Your task to perform on an android device: toggle priority inbox in the gmail app Image 0: 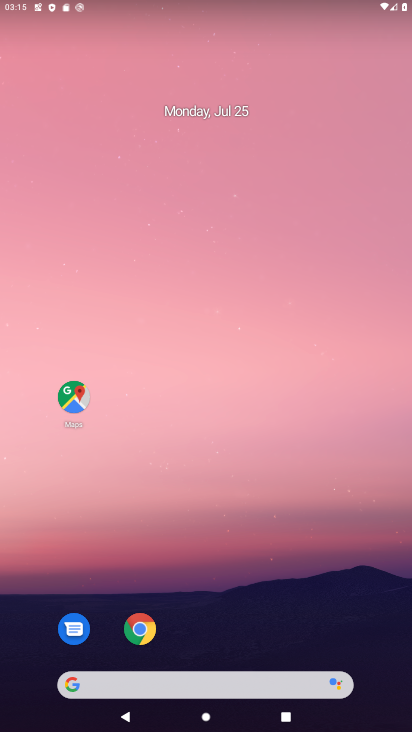
Step 0: drag from (289, 578) to (250, 16)
Your task to perform on an android device: toggle priority inbox in the gmail app Image 1: 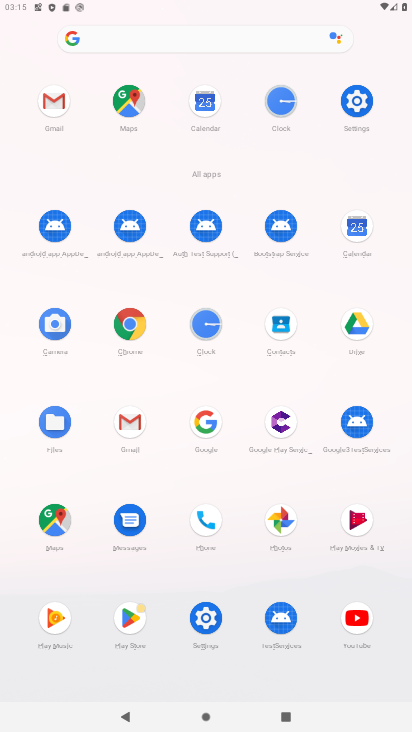
Step 1: click (128, 415)
Your task to perform on an android device: toggle priority inbox in the gmail app Image 2: 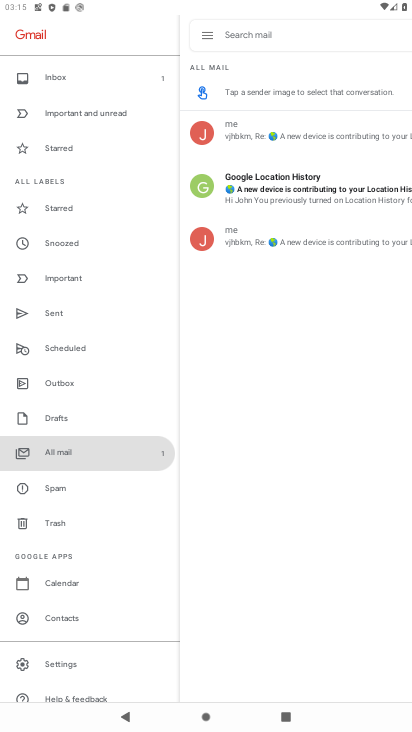
Step 2: click (46, 655)
Your task to perform on an android device: toggle priority inbox in the gmail app Image 3: 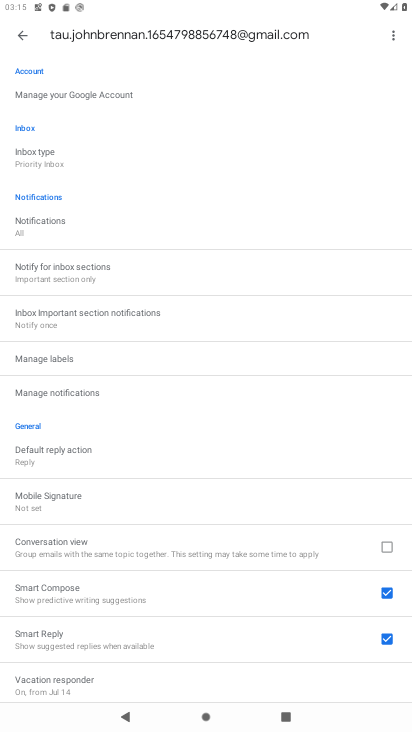
Step 3: click (40, 149)
Your task to perform on an android device: toggle priority inbox in the gmail app Image 4: 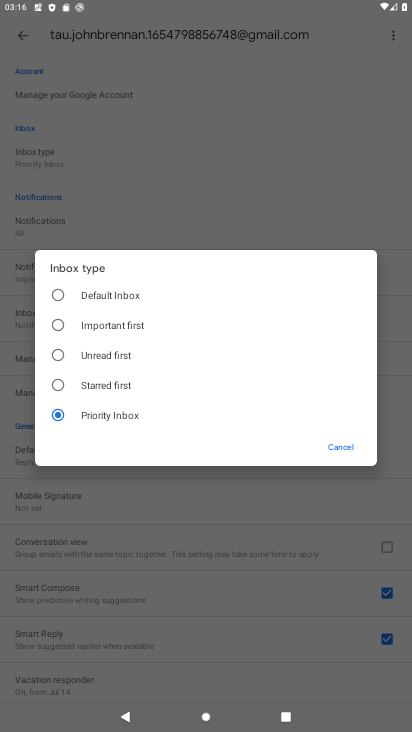
Step 4: click (68, 355)
Your task to perform on an android device: toggle priority inbox in the gmail app Image 5: 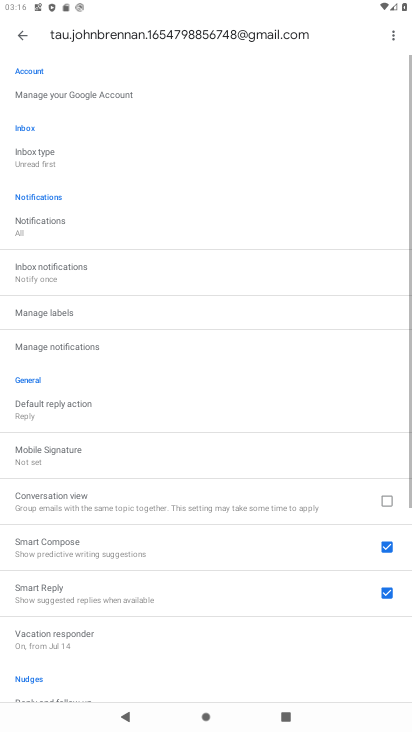
Step 5: task complete